Your task to perform on an android device: toggle translation in the chrome app Image 0: 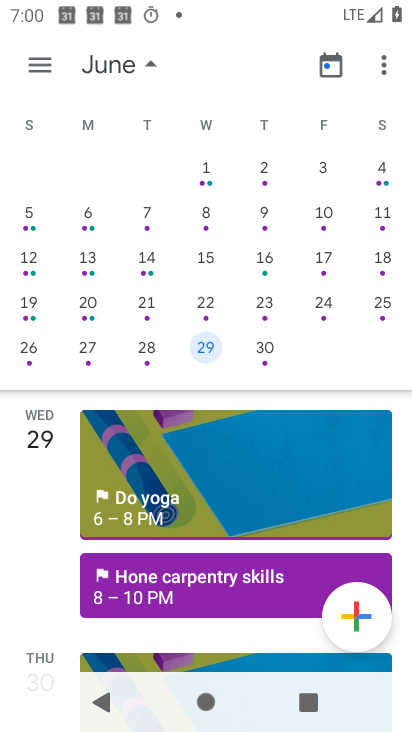
Step 0: press home button
Your task to perform on an android device: toggle translation in the chrome app Image 1: 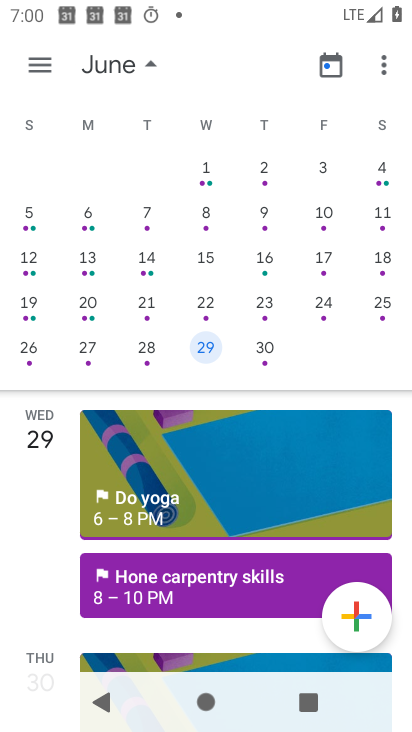
Step 1: drag from (351, 608) to (286, 44)
Your task to perform on an android device: toggle translation in the chrome app Image 2: 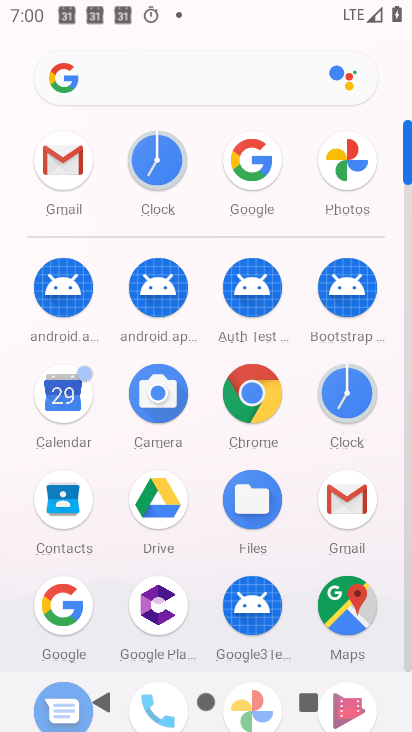
Step 2: click (236, 400)
Your task to perform on an android device: toggle translation in the chrome app Image 3: 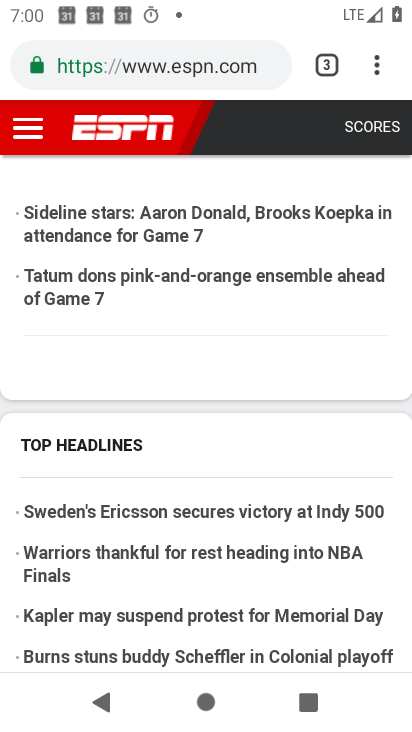
Step 3: press back button
Your task to perform on an android device: toggle translation in the chrome app Image 4: 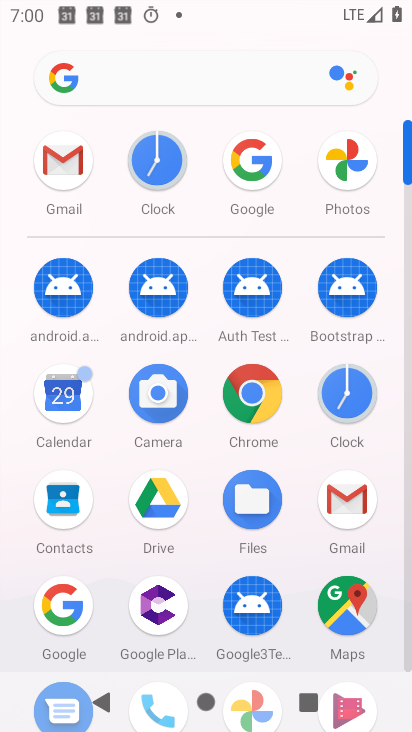
Step 4: click (242, 394)
Your task to perform on an android device: toggle translation in the chrome app Image 5: 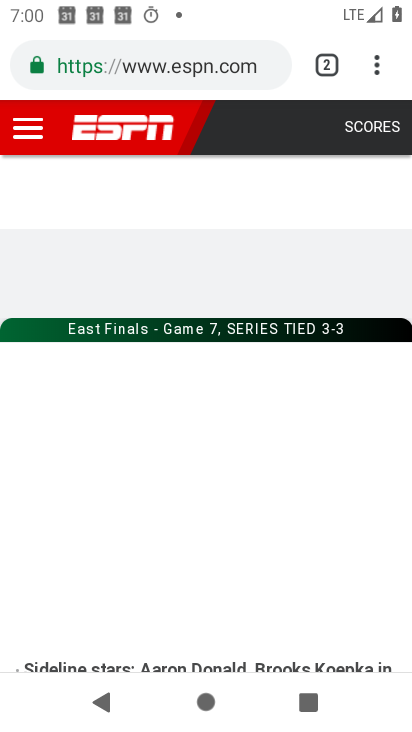
Step 5: click (379, 60)
Your task to perform on an android device: toggle translation in the chrome app Image 6: 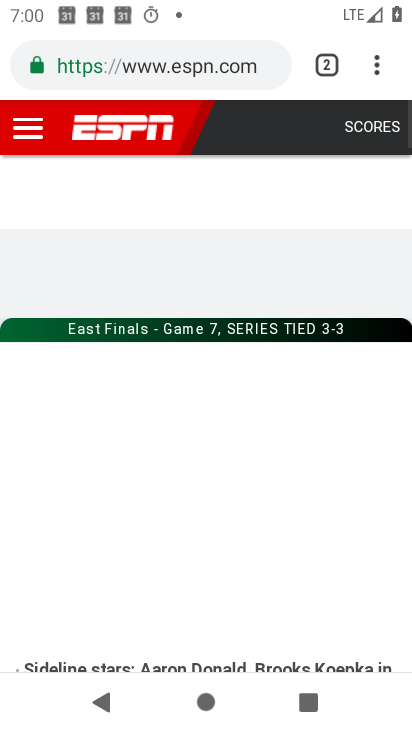
Step 6: press back button
Your task to perform on an android device: toggle translation in the chrome app Image 7: 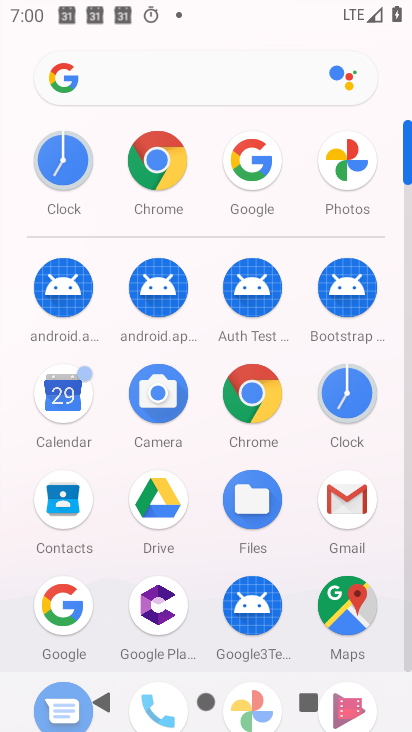
Step 7: click (241, 386)
Your task to perform on an android device: toggle translation in the chrome app Image 8: 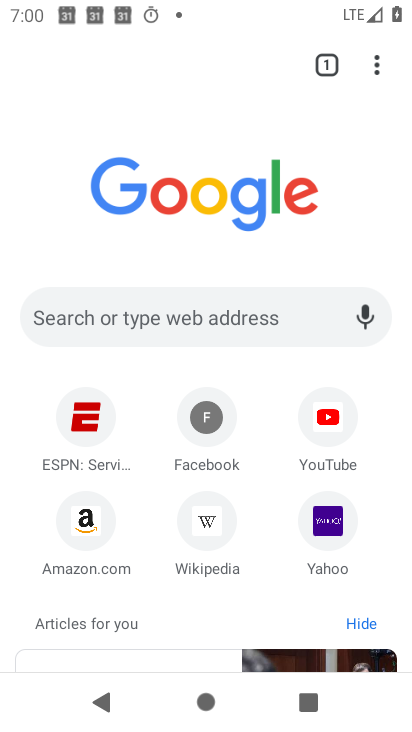
Step 8: click (385, 57)
Your task to perform on an android device: toggle translation in the chrome app Image 9: 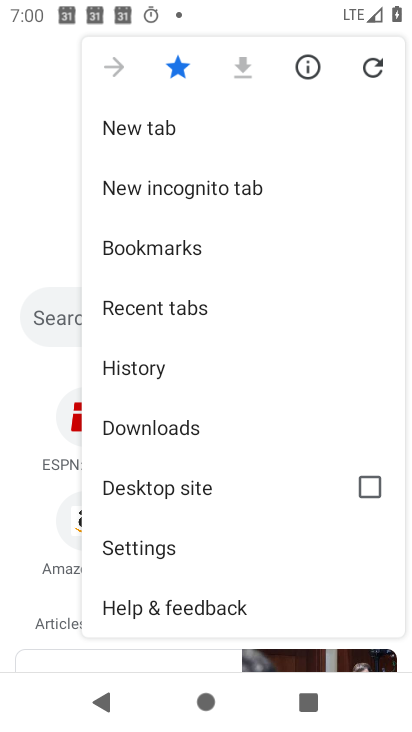
Step 9: click (385, 57)
Your task to perform on an android device: toggle translation in the chrome app Image 10: 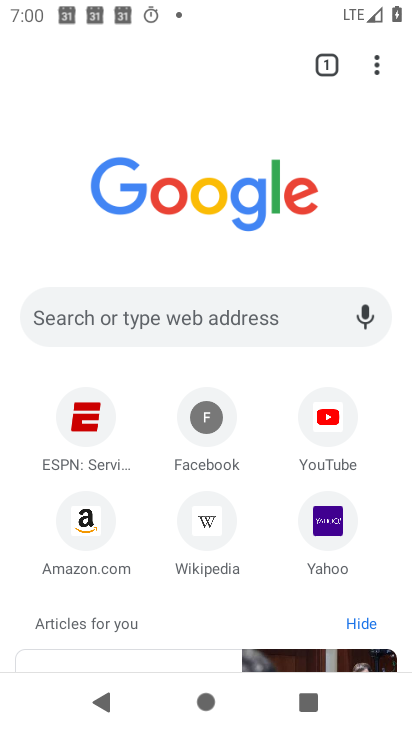
Step 10: click (384, 64)
Your task to perform on an android device: toggle translation in the chrome app Image 11: 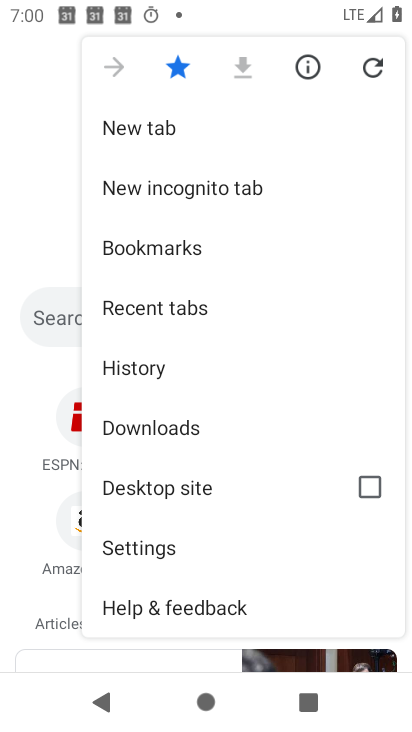
Step 11: click (195, 544)
Your task to perform on an android device: toggle translation in the chrome app Image 12: 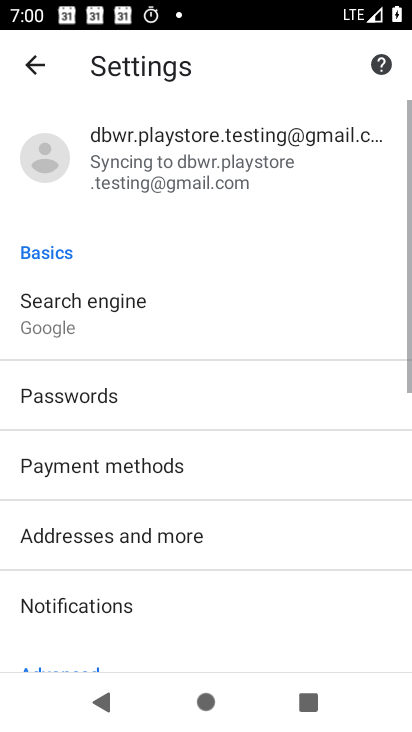
Step 12: drag from (207, 567) to (233, 100)
Your task to perform on an android device: toggle translation in the chrome app Image 13: 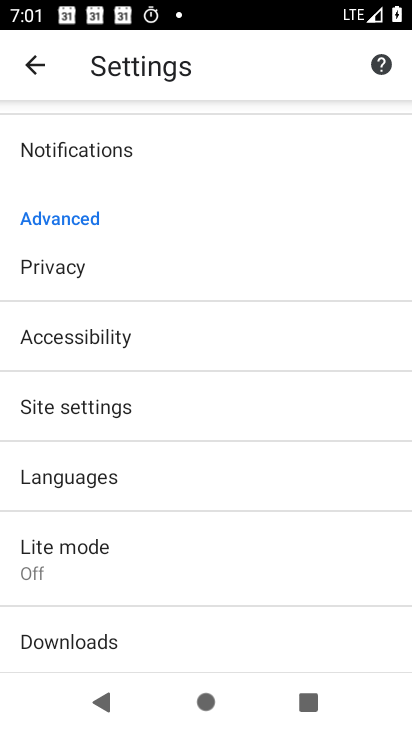
Step 13: click (138, 477)
Your task to perform on an android device: toggle translation in the chrome app Image 14: 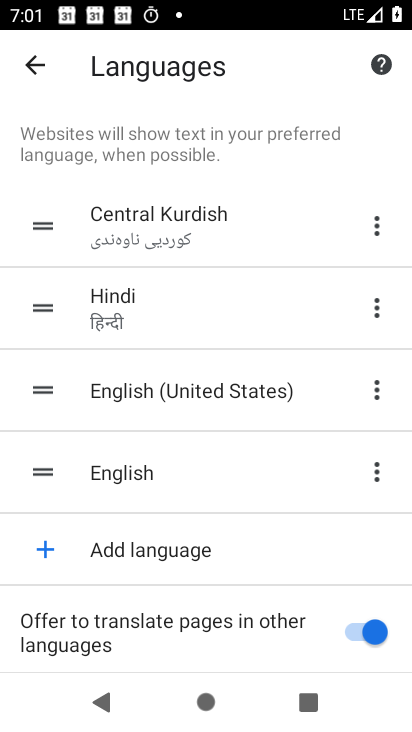
Step 14: click (347, 637)
Your task to perform on an android device: toggle translation in the chrome app Image 15: 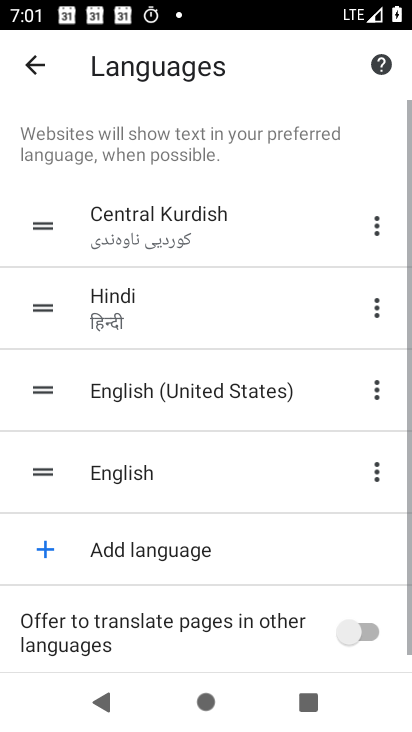
Step 15: task complete